Your task to perform on an android device: delete the emails in spam in the gmail app Image 0: 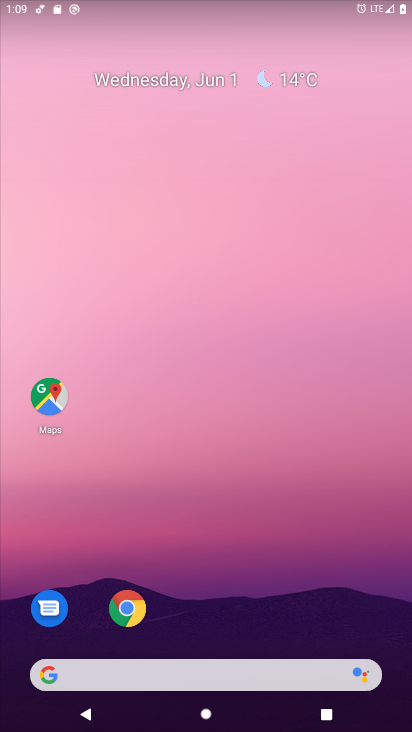
Step 0: drag from (210, 629) to (336, 243)
Your task to perform on an android device: delete the emails in spam in the gmail app Image 1: 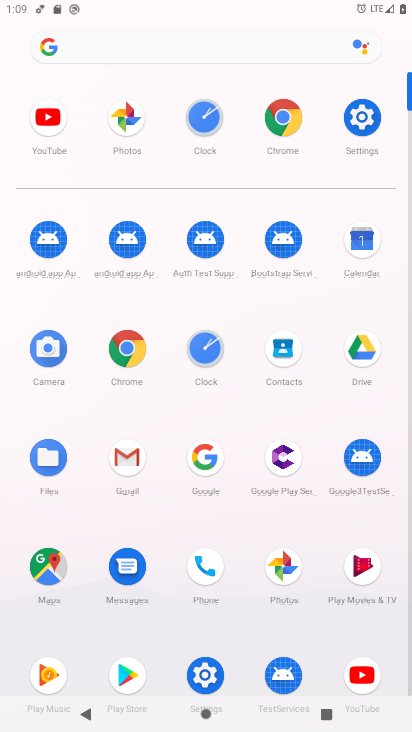
Step 1: click (116, 469)
Your task to perform on an android device: delete the emails in spam in the gmail app Image 2: 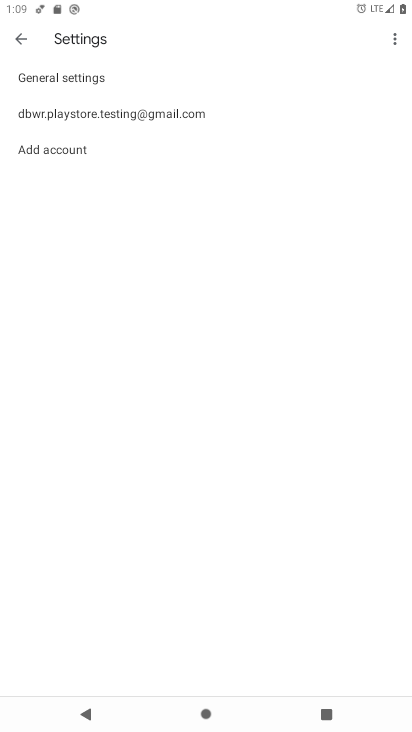
Step 2: click (18, 45)
Your task to perform on an android device: delete the emails in spam in the gmail app Image 3: 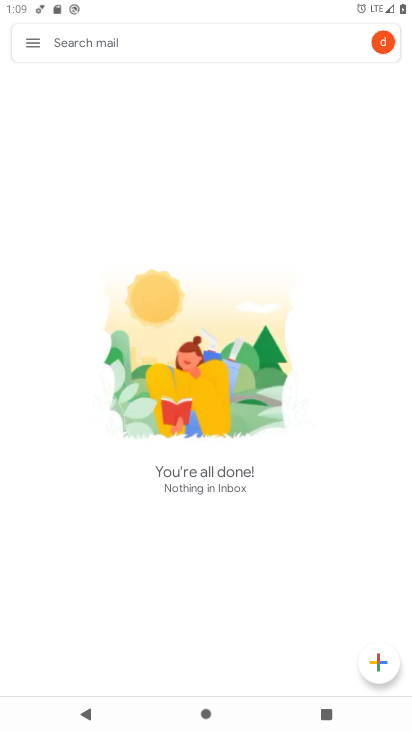
Step 3: click (29, 35)
Your task to perform on an android device: delete the emails in spam in the gmail app Image 4: 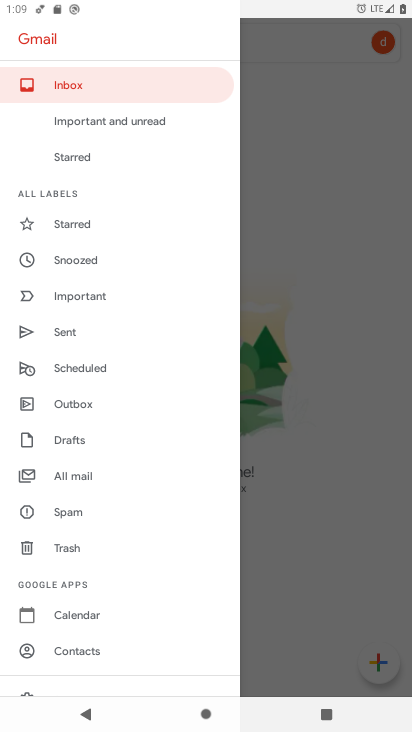
Step 4: click (78, 508)
Your task to perform on an android device: delete the emails in spam in the gmail app Image 5: 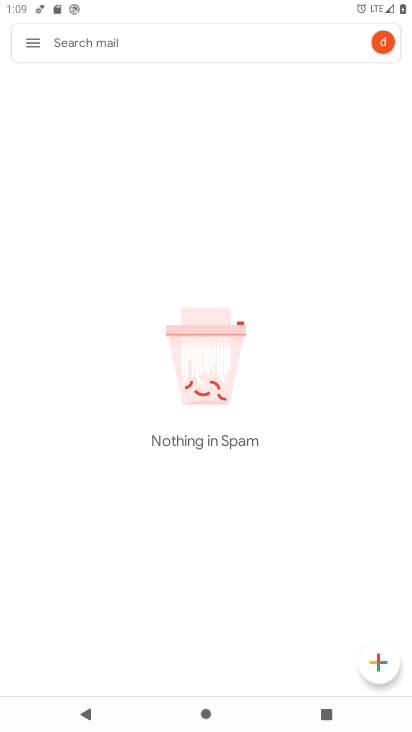
Step 5: task complete